Your task to perform on an android device: Open the calendar and show me this week's events? Image 0: 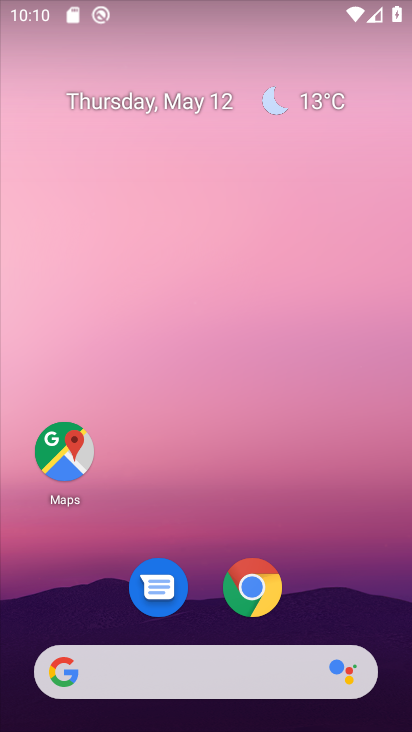
Step 0: drag from (212, 536) to (307, 111)
Your task to perform on an android device: Open the calendar and show me this week's events? Image 1: 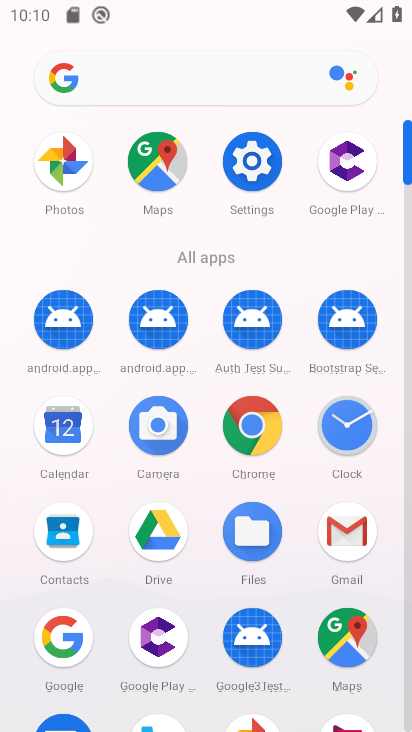
Step 1: click (61, 441)
Your task to perform on an android device: Open the calendar and show me this week's events? Image 2: 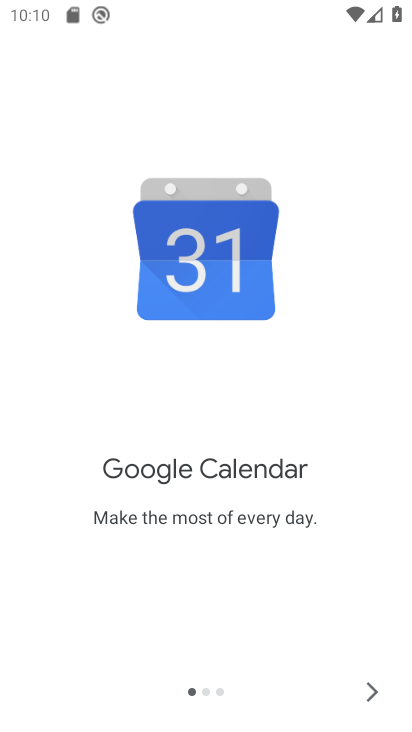
Step 2: click (373, 689)
Your task to perform on an android device: Open the calendar and show me this week's events? Image 3: 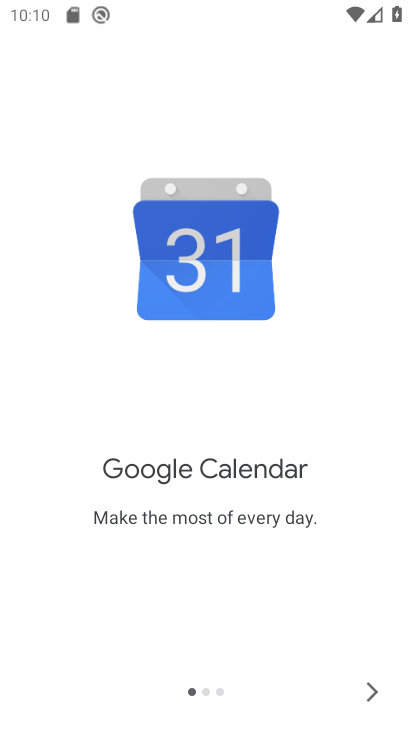
Step 3: click (373, 689)
Your task to perform on an android device: Open the calendar and show me this week's events? Image 4: 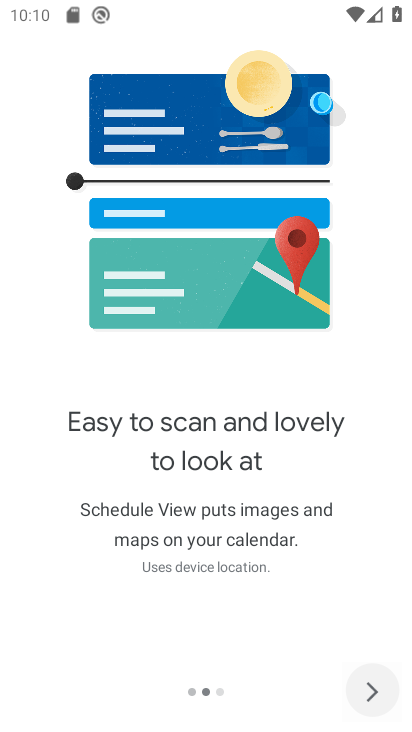
Step 4: click (373, 689)
Your task to perform on an android device: Open the calendar and show me this week's events? Image 5: 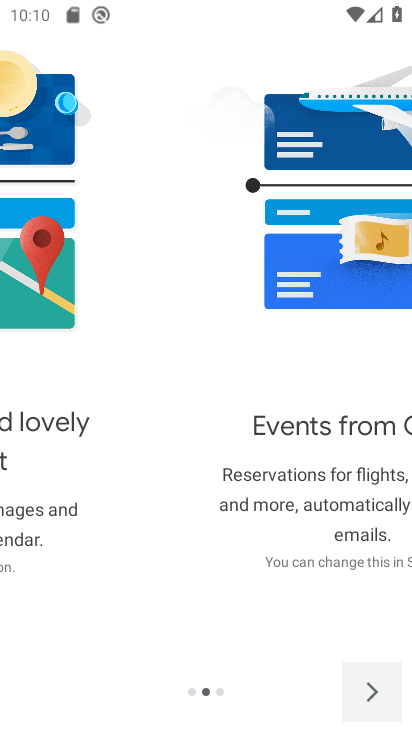
Step 5: click (373, 689)
Your task to perform on an android device: Open the calendar and show me this week's events? Image 6: 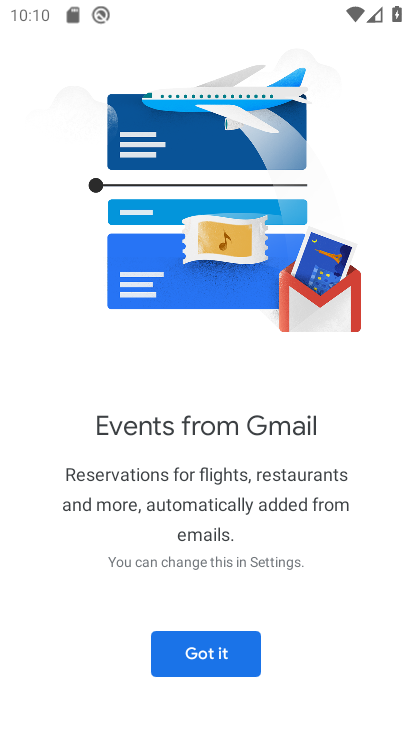
Step 6: click (156, 653)
Your task to perform on an android device: Open the calendar and show me this week's events? Image 7: 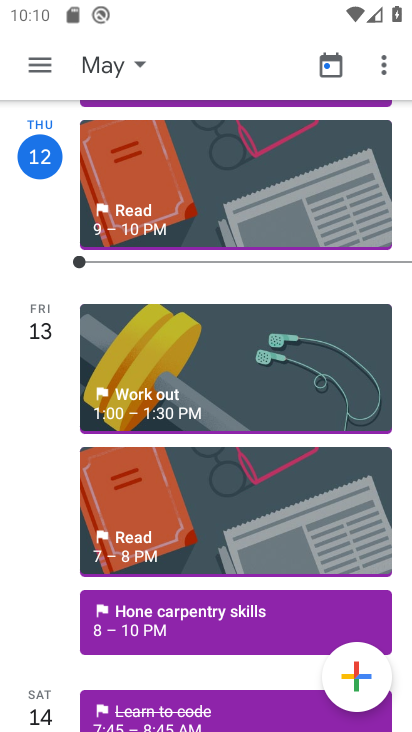
Step 7: click (35, 61)
Your task to perform on an android device: Open the calendar and show me this week's events? Image 8: 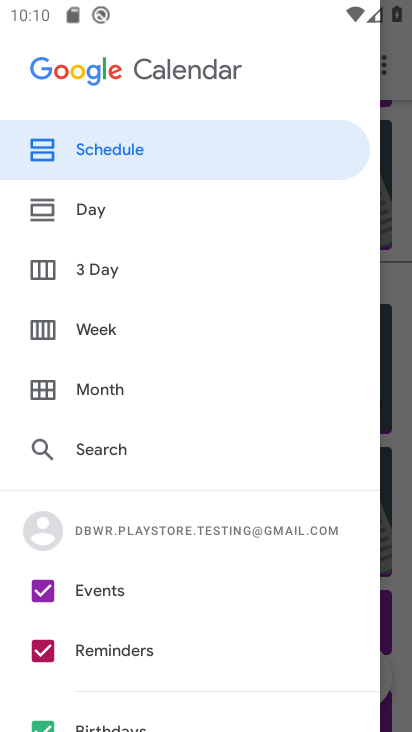
Step 8: click (42, 652)
Your task to perform on an android device: Open the calendar and show me this week's events? Image 9: 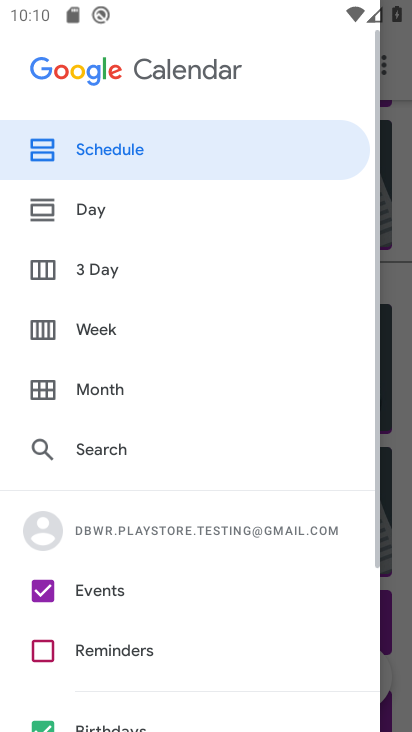
Step 9: drag from (81, 697) to (117, 470)
Your task to perform on an android device: Open the calendar and show me this week's events? Image 10: 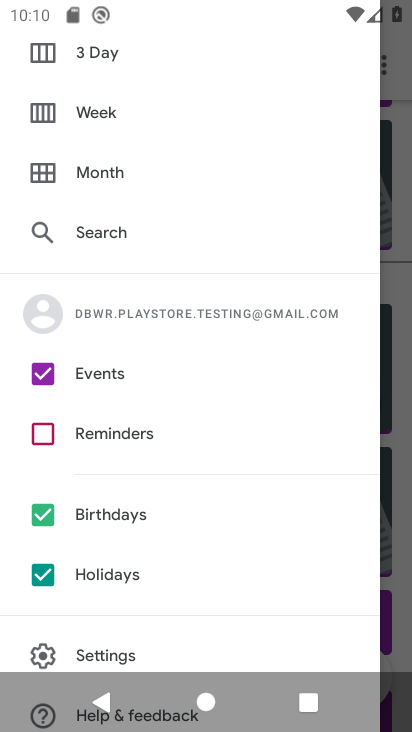
Step 10: click (41, 583)
Your task to perform on an android device: Open the calendar and show me this week's events? Image 11: 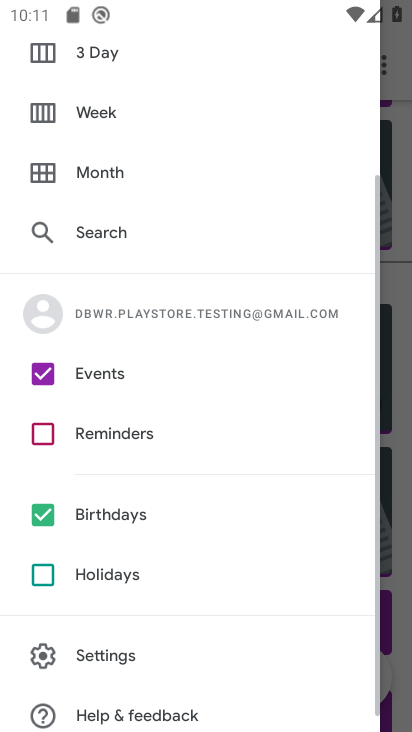
Step 11: click (45, 498)
Your task to perform on an android device: Open the calendar and show me this week's events? Image 12: 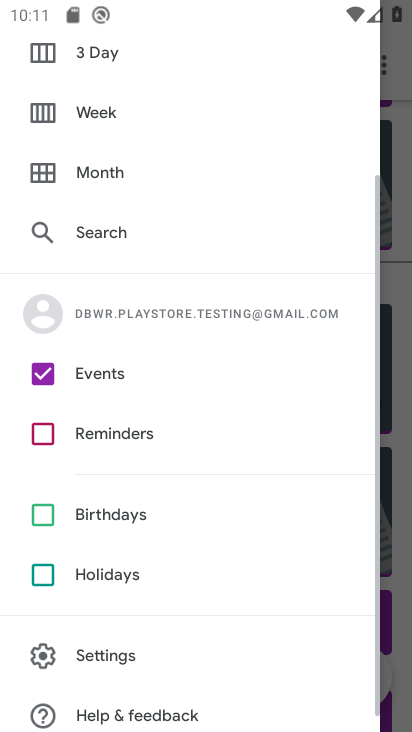
Step 12: click (137, 115)
Your task to perform on an android device: Open the calendar and show me this week's events? Image 13: 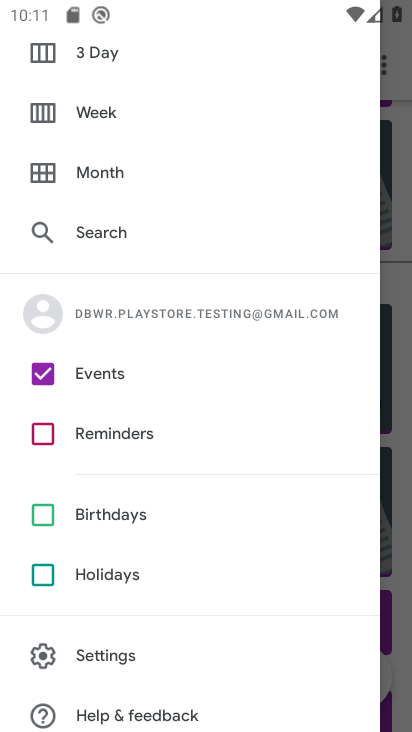
Step 13: click (109, 118)
Your task to perform on an android device: Open the calendar and show me this week's events? Image 14: 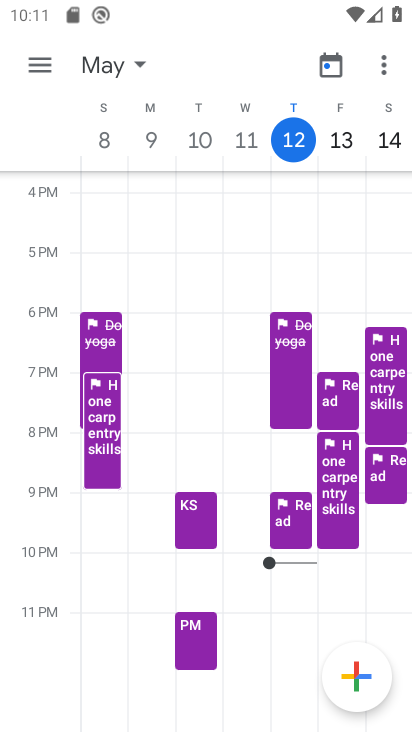
Step 14: task complete